Your task to perform on an android device: What is the news today? Image 0: 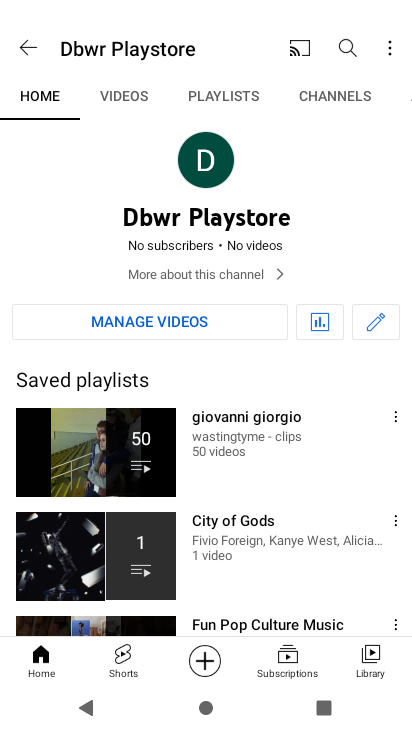
Step 0: drag from (296, 567) to (360, 539)
Your task to perform on an android device: What is the news today? Image 1: 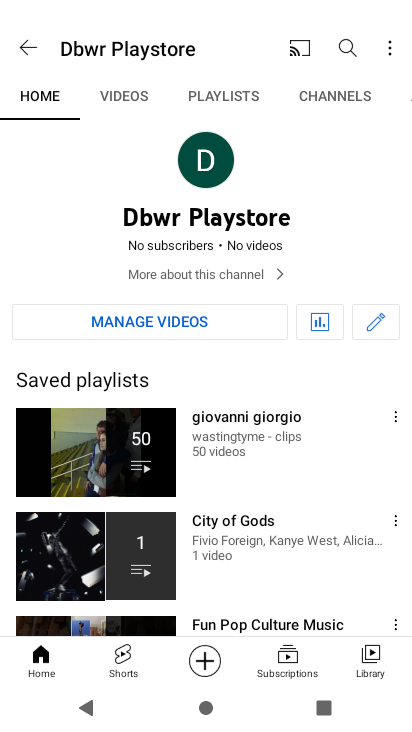
Step 1: press home button
Your task to perform on an android device: What is the news today? Image 2: 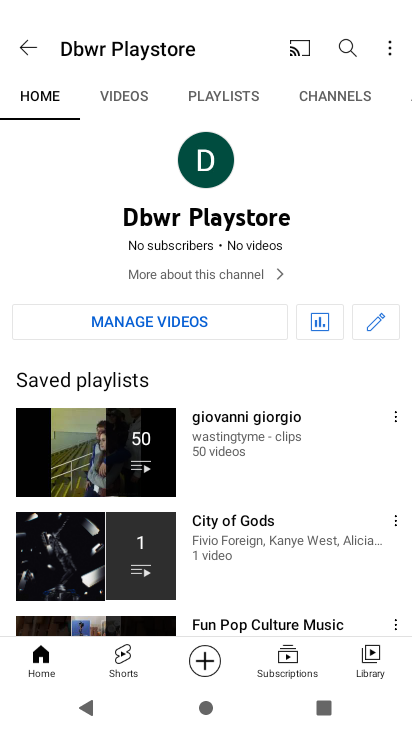
Step 2: click (274, 353)
Your task to perform on an android device: What is the news today? Image 3: 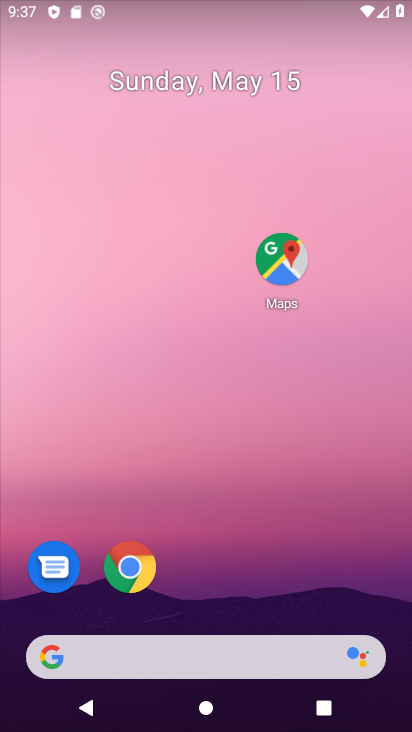
Step 3: drag from (326, 541) to (269, 133)
Your task to perform on an android device: What is the news today? Image 4: 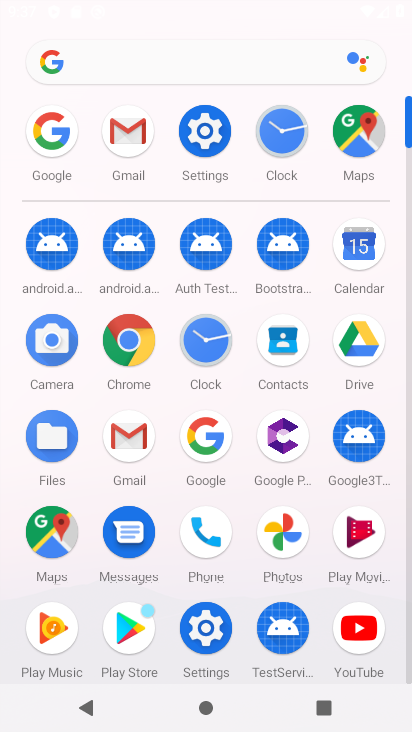
Step 4: click (54, 138)
Your task to perform on an android device: What is the news today? Image 5: 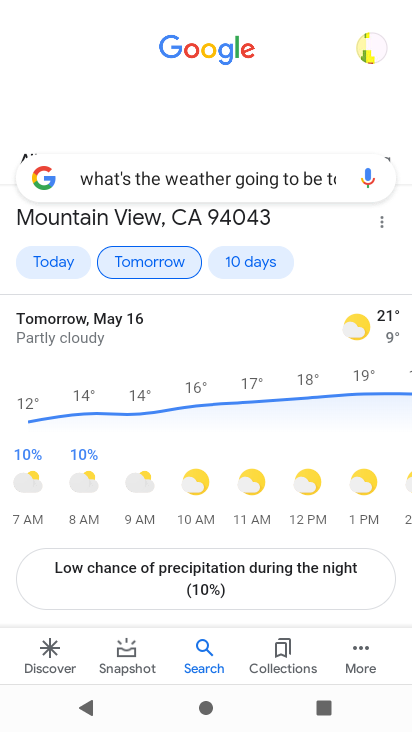
Step 5: click (318, 170)
Your task to perform on an android device: What is the news today? Image 6: 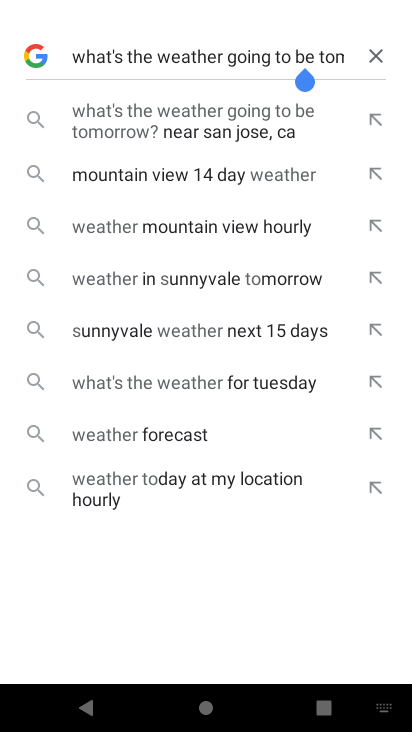
Step 6: click (376, 53)
Your task to perform on an android device: What is the news today? Image 7: 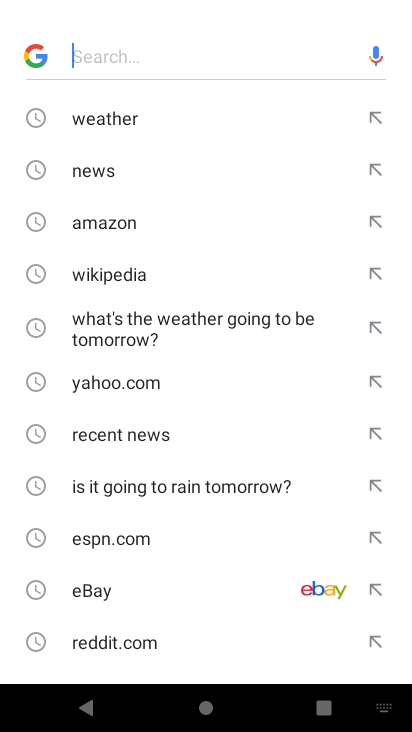
Step 7: click (125, 174)
Your task to perform on an android device: What is the news today? Image 8: 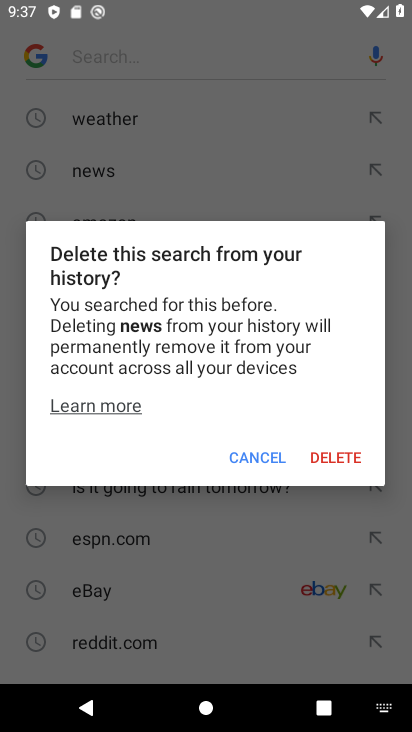
Step 8: click (273, 453)
Your task to perform on an android device: What is the news today? Image 9: 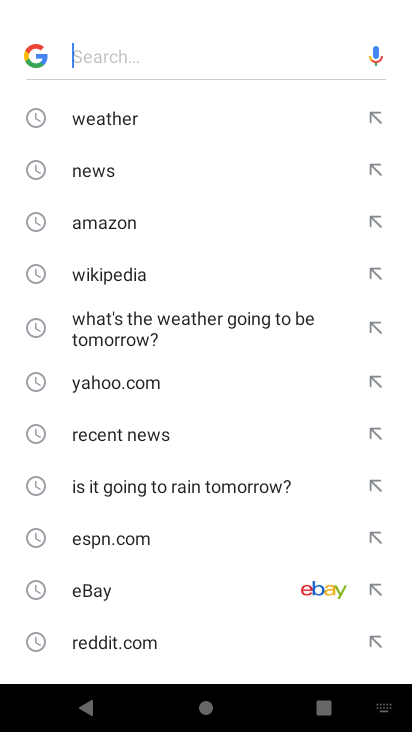
Step 9: click (115, 160)
Your task to perform on an android device: What is the news today? Image 10: 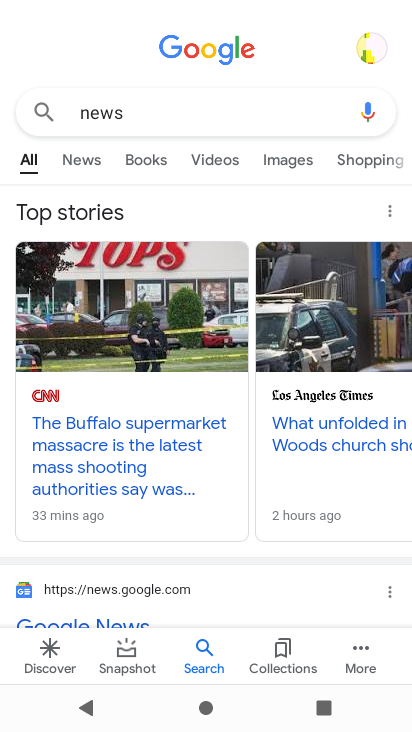
Step 10: task complete